Your task to perform on an android device: Show me the alarms in the clock app Image 0: 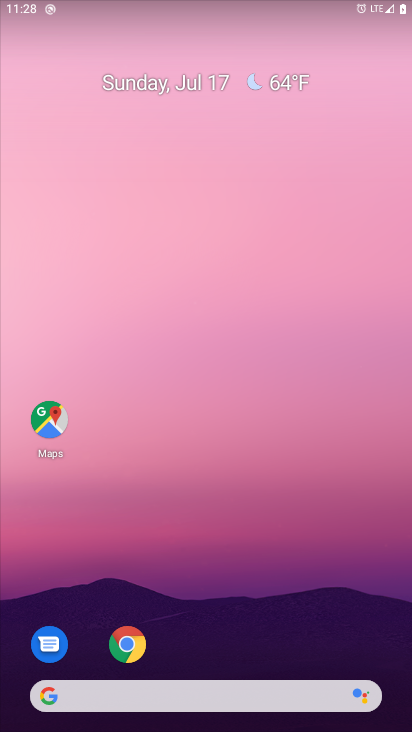
Step 0: drag from (310, 601) to (309, 171)
Your task to perform on an android device: Show me the alarms in the clock app Image 1: 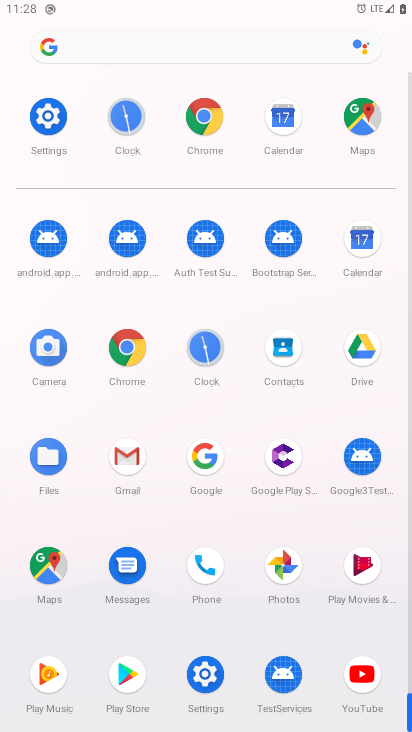
Step 1: click (127, 123)
Your task to perform on an android device: Show me the alarms in the clock app Image 2: 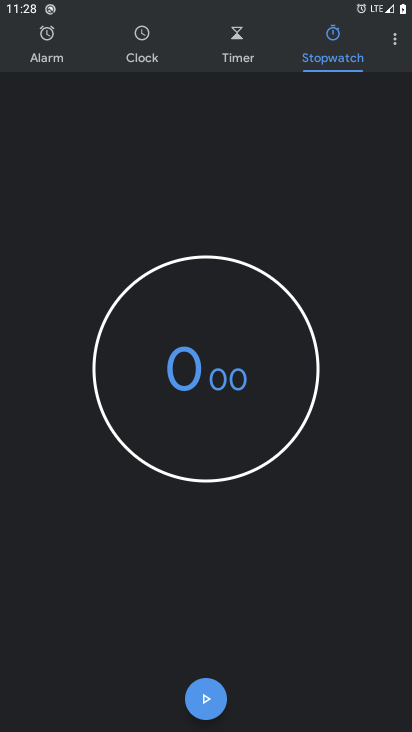
Step 2: click (46, 42)
Your task to perform on an android device: Show me the alarms in the clock app Image 3: 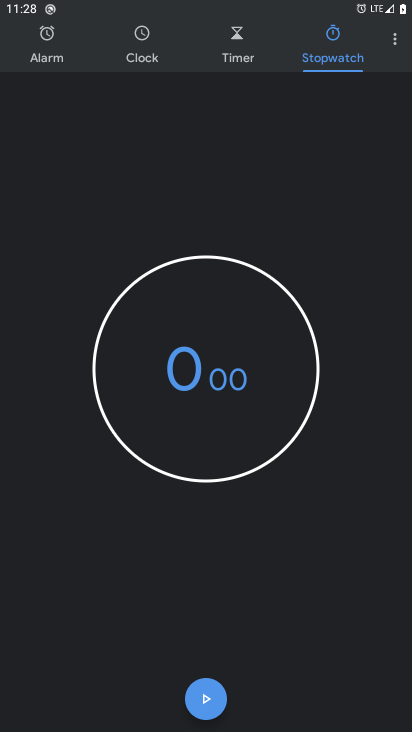
Step 3: task complete